Your task to perform on an android device: Go to battery settings Image 0: 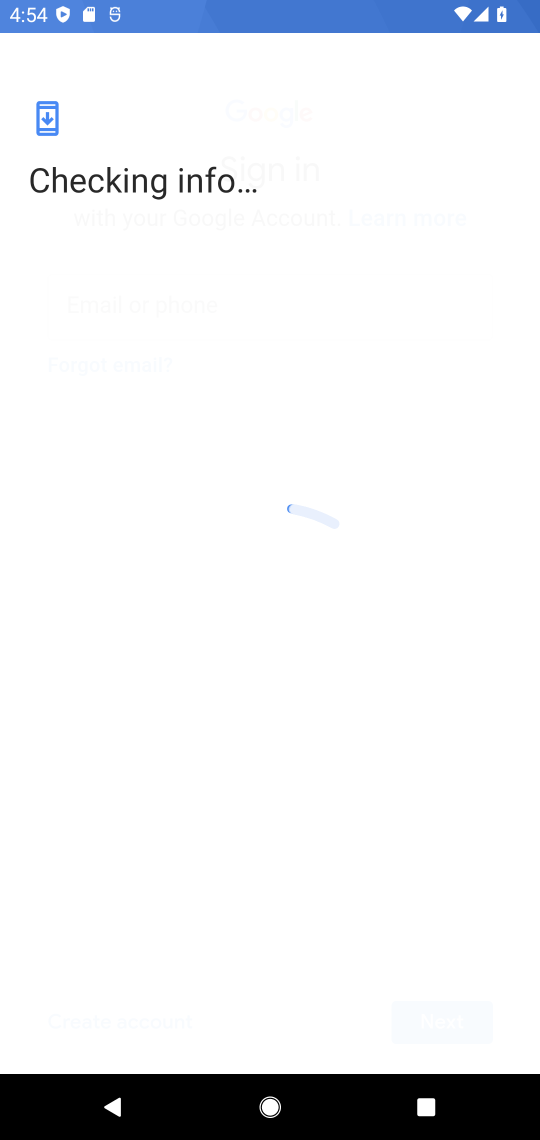
Step 0: press home button
Your task to perform on an android device: Go to battery settings Image 1: 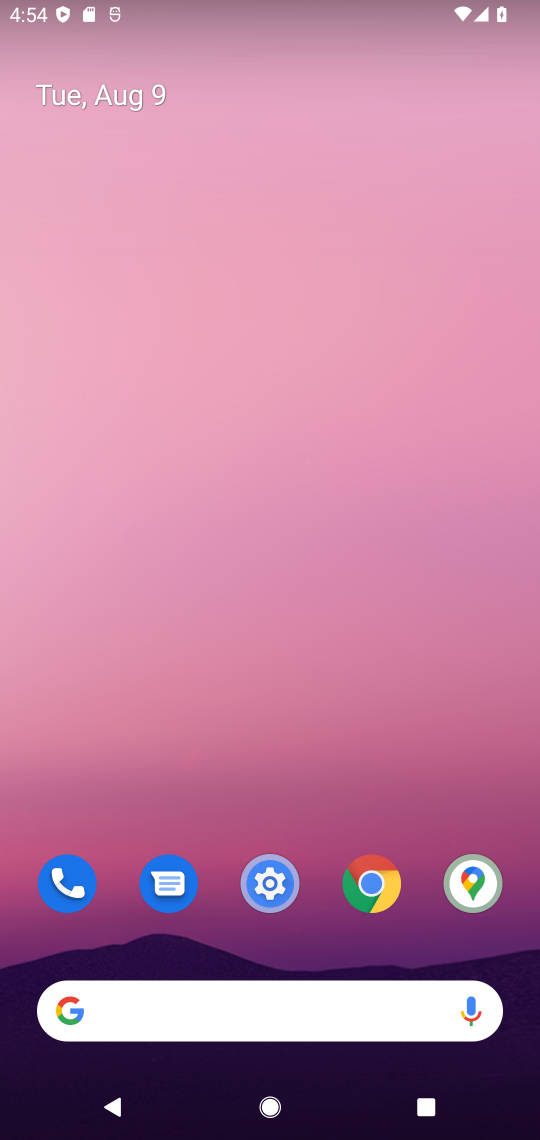
Step 1: click (273, 881)
Your task to perform on an android device: Go to battery settings Image 2: 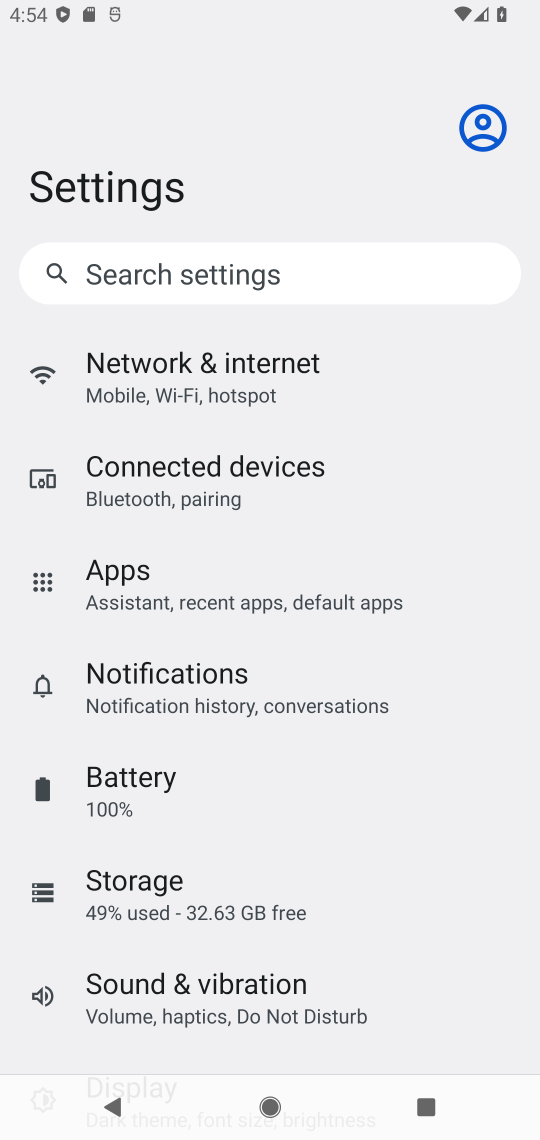
Step 2: click (270, 778)
Your task to perform on an android device: Go to battery settings Image 3: 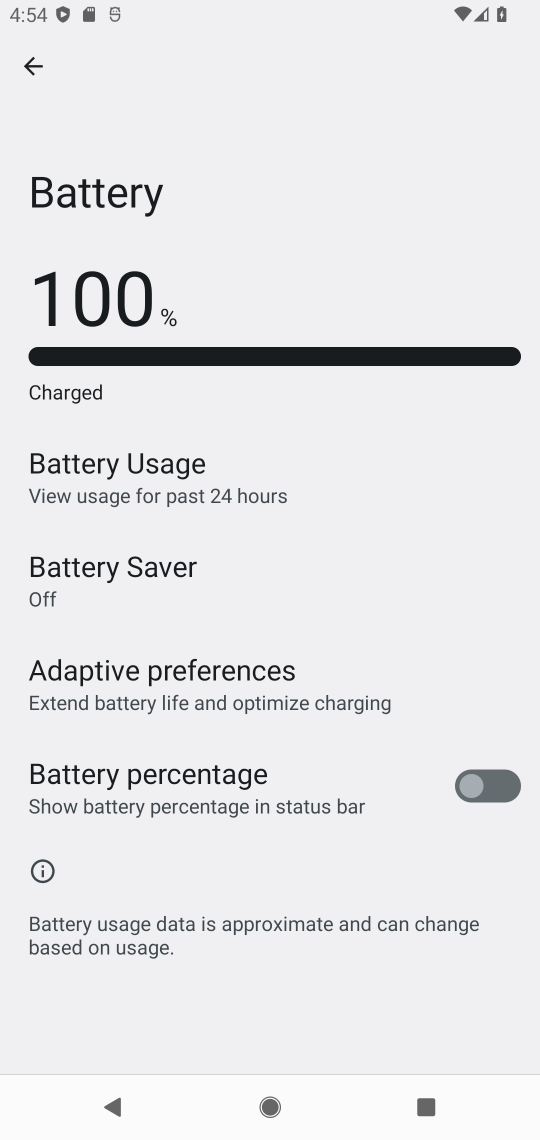
Step 3: task complete